Your task to perform on an android device: Open Chrome and go to settings Image 0: 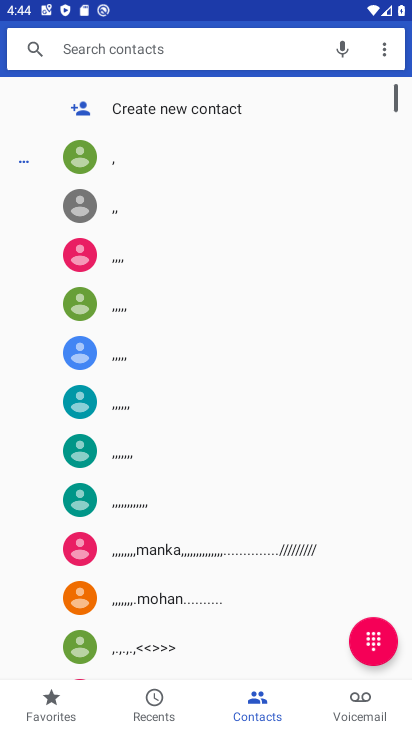
Step 0: press back button
Your task to perform on an android device: Open Chrome and go to settings Image 1: 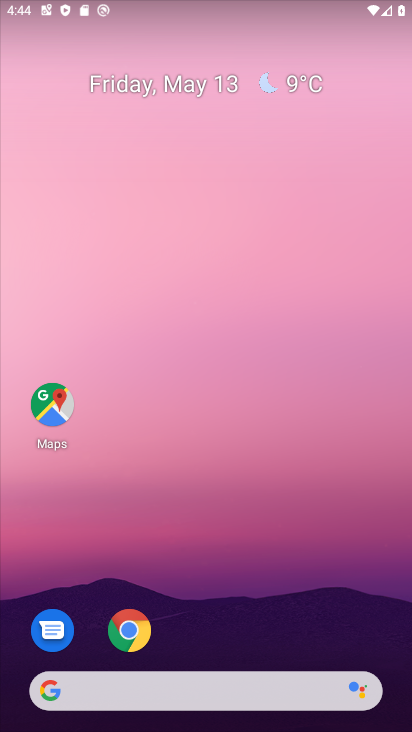
Step 1: drag from (254, 556) to (244, 103)
Your task to perform on an android device: Open Chrome and go to settings Image 2: 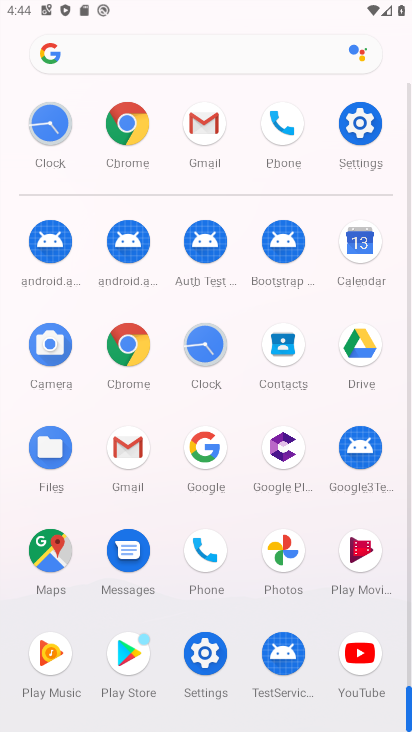
Step 2: click (125, 341)
Your task to perform on an android device: Open Chrome and go to settings Image 3: 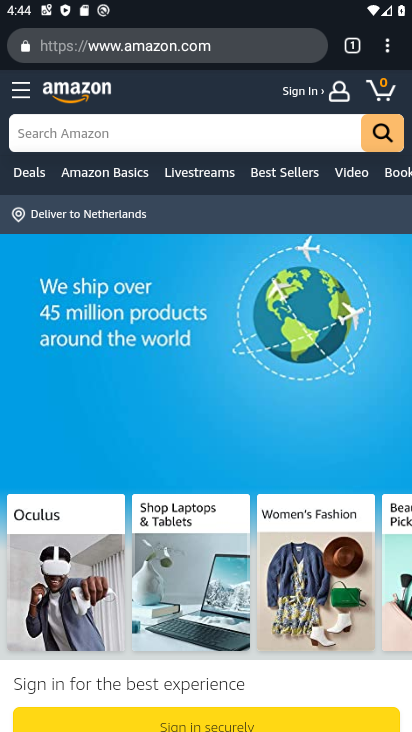
Step 3: click (144, 43)
Your task to perform on an android device: Open Chrome and go to settings Image 4: 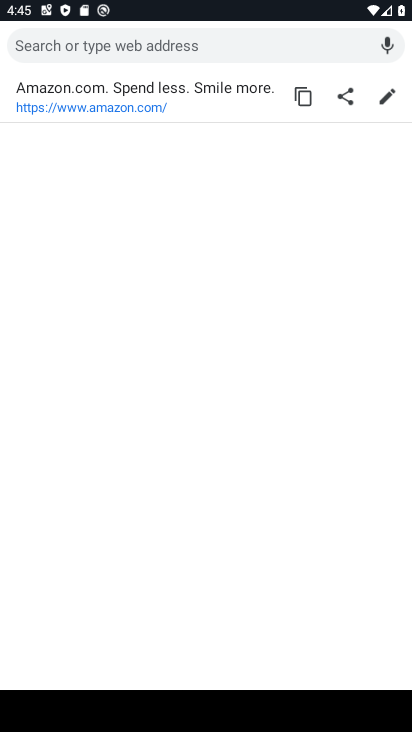
Step 4: task complete